Your task to perform on an android device: Show me popular games on the Play Store Image 0: 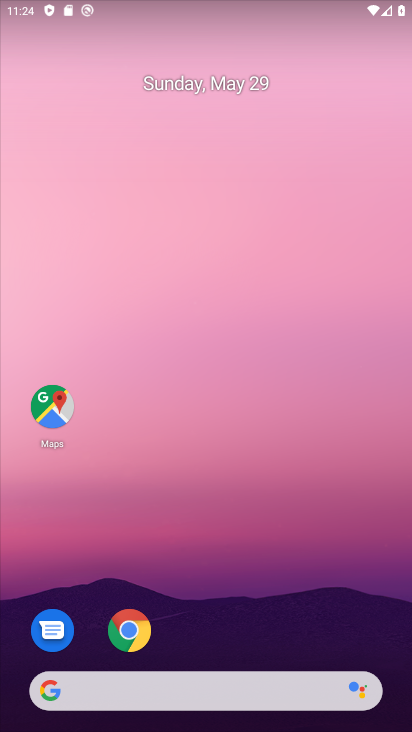
Step 0: drag from (122, 729) to (117, 5)
Your task to perform on an android device: Show me popular games on the Play Store Image 1: 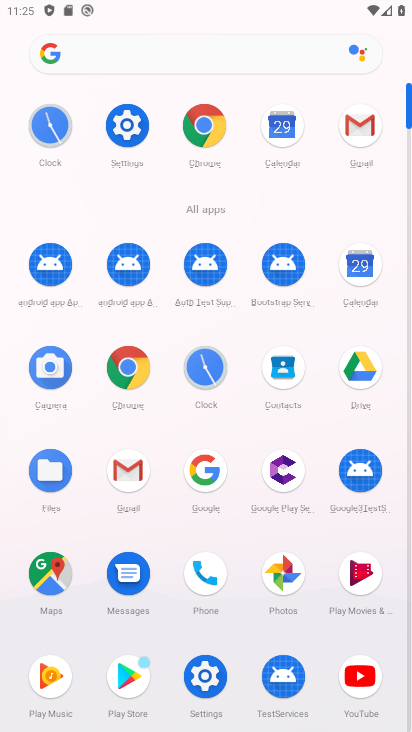
Step 1: click (122, 689)
Your task to perform on an android device: Show me popular games on the Play Store Image 2: 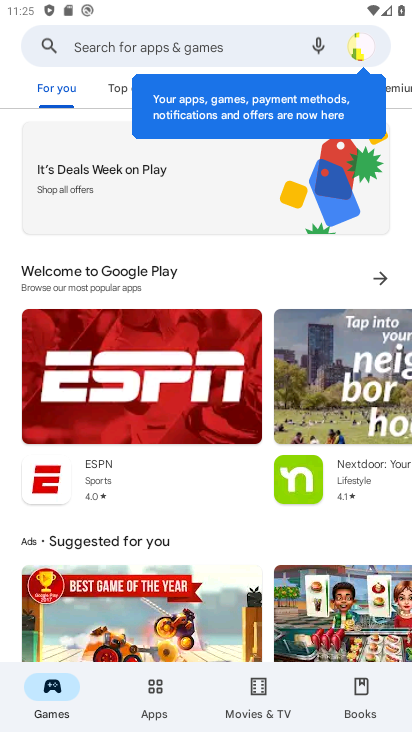
Step 2: click (116, 95)
Your task to perform on an android device: Show me popular games on the Play Store Image 3: 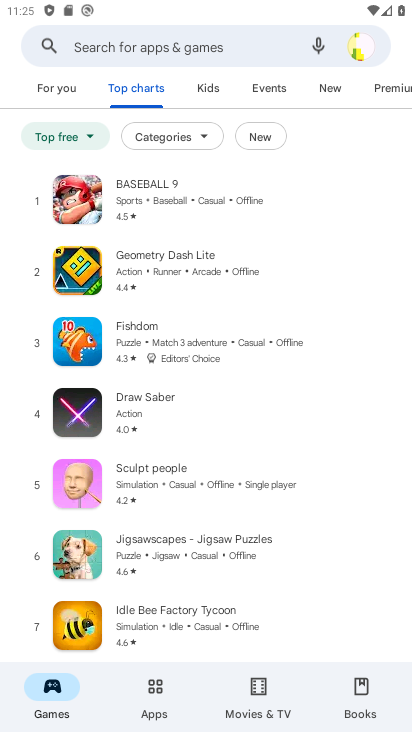
Step 3: task complete